Your task to perform on an android device: Open Youtube and go to "Your channel" Image 0: 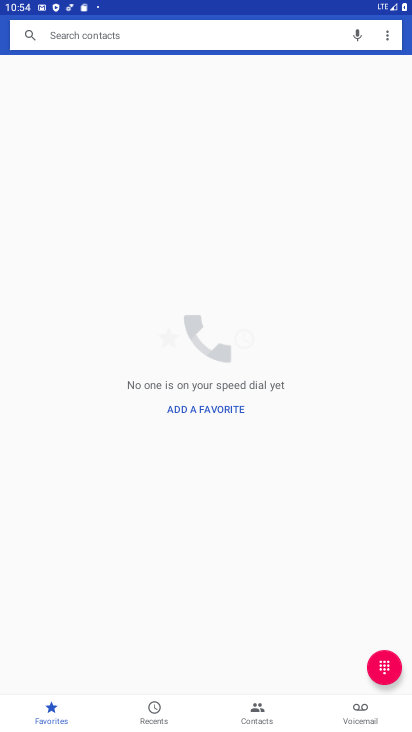
Step 0: press home button
Your task to perform on an android device: Open Youtube and go to "Your channel" Image 1: 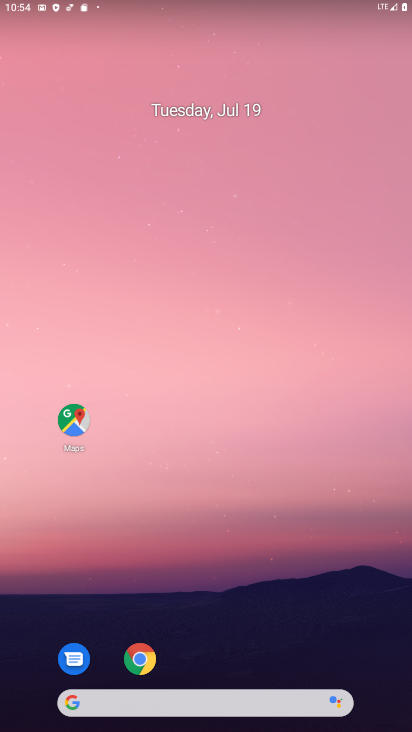
Step 1: drag from (266, 567) to (335, 253)
Your task to perform on an android device: Open Youtube and go to "Your channel" Image 2: 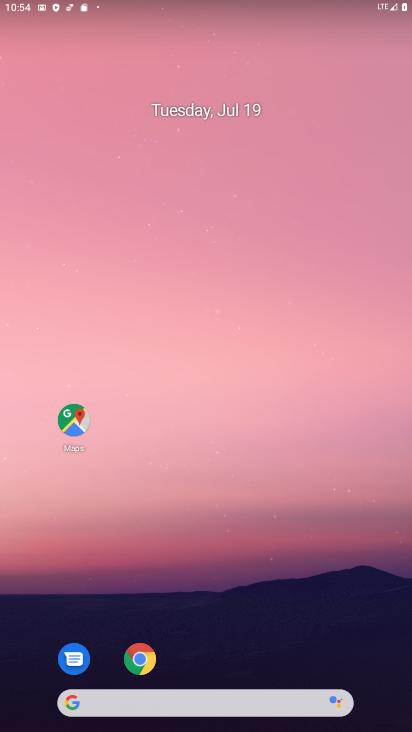
Step 2: drag from (225, 577) to (266, 289)
Your task to perform on an android device: Open Youtube and go to "Your channel" Image 3: 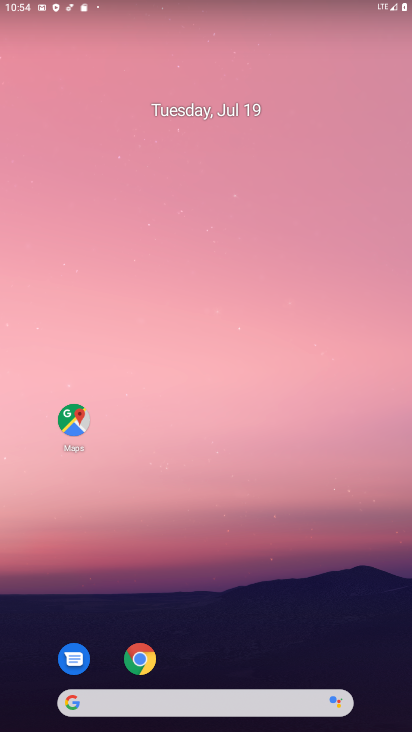
Step 3: drag from (250, 672) to (325, 240)
Your task to perform on an android device: Open Youtube and go to "Your channel" Image 4: 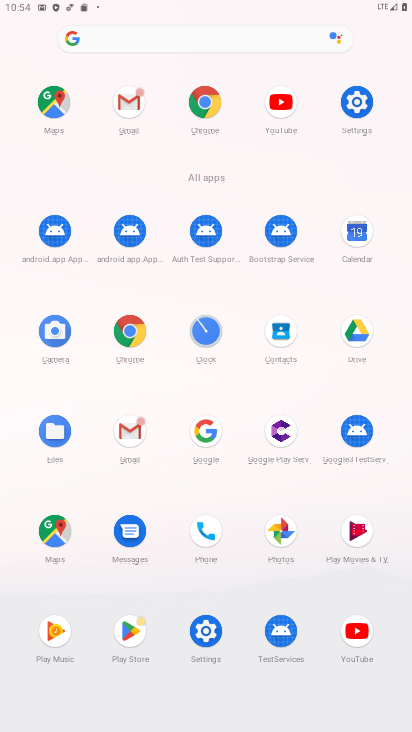
Step 4: click (281, 104)
Your task to perform on an android device: Open Youtube and go to "Your channel" Image 5: 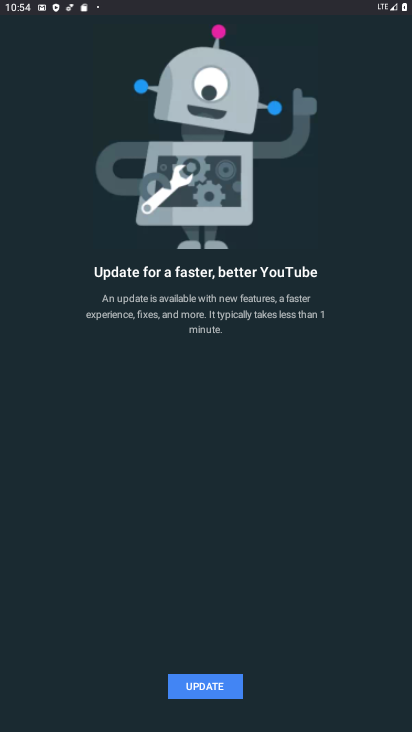
Step 5: task complete